Your task to perform on an android device: change notification settings in the gmail app Image 0: 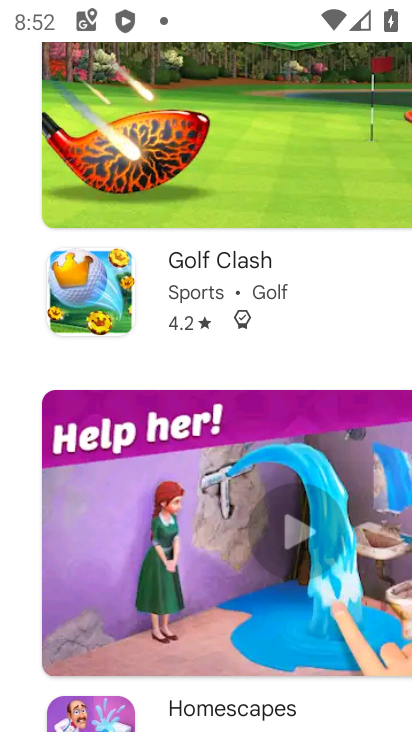
Step 0: press home button
Your task to perform on an android device: change notification settings in the gmail app Image 1: 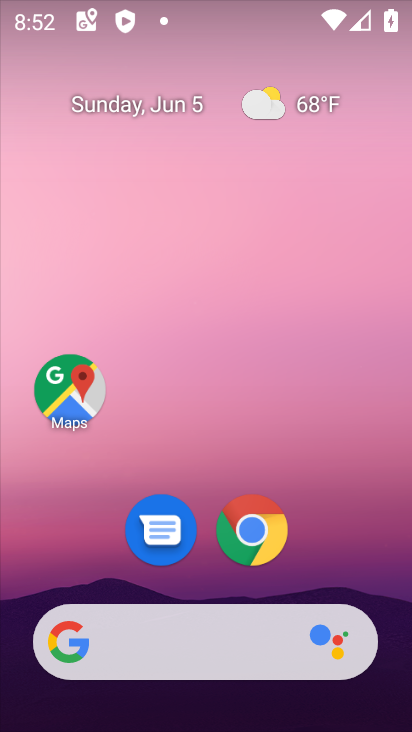
Step 1: drag from (405, 628) to (363, 81)
Your task to perform on an android device: change notification settings in the gmail app Image 2: 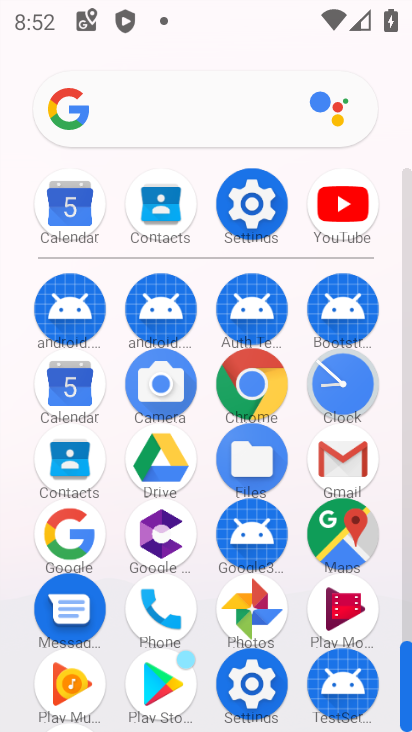
Step 2: click (337, 453)
Your task to perform on an android device: change notification settings in the gmail app Image 3: 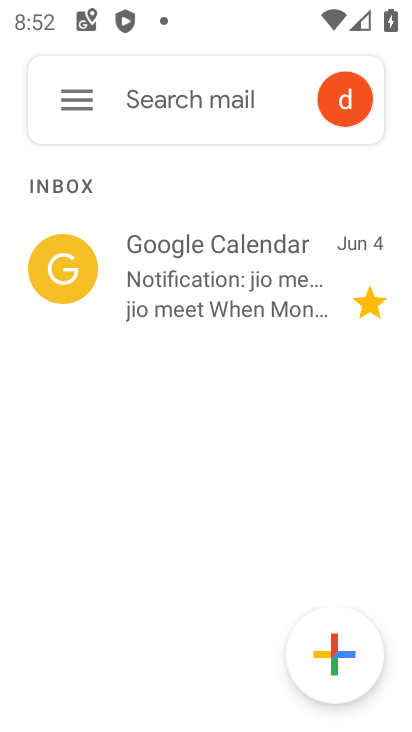
Step 3: click (66, 103)
Your task to perform on an android device: change notification settings in the gmail app Image 4: 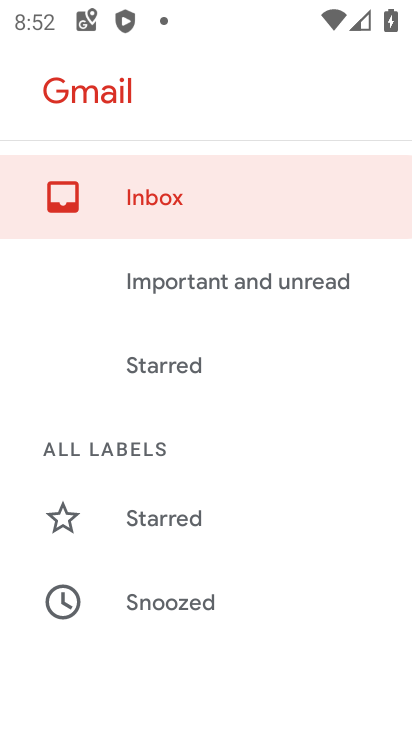
Step 4: drag from (274, 669) to (286, 104)
Your task to perform on an android device: change notification settings in the gmail app Image 5: 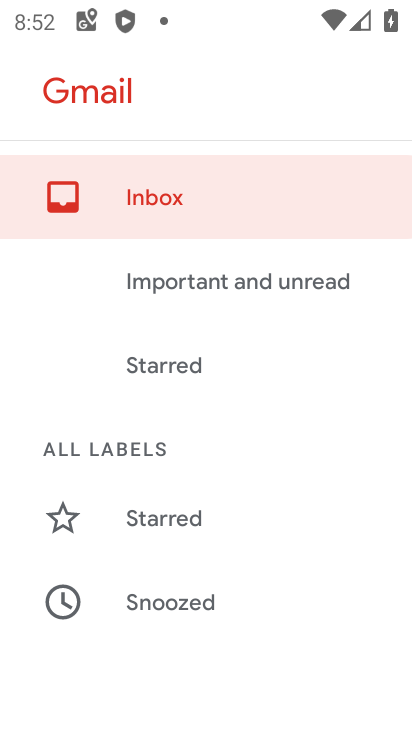
Step 5: drag from (283, 587) to (261, 77)
Your task to perform on an android device: change notification settings in the gmail app Image 6: 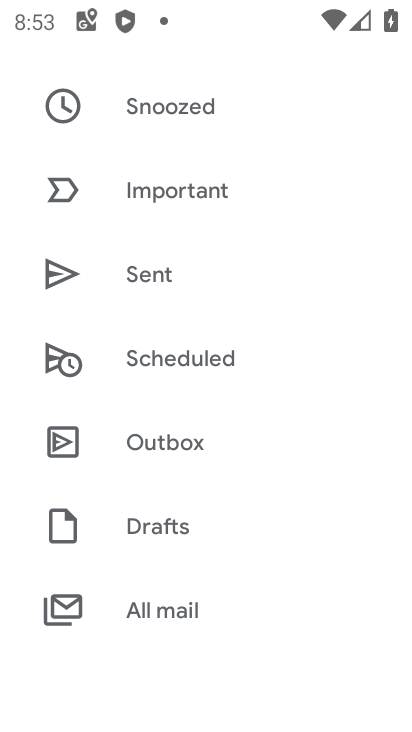
Step 6: drag from (248, 626) to (251, 171)
Your task to perform on an android device: change notification settings in the gmail app Image 7: 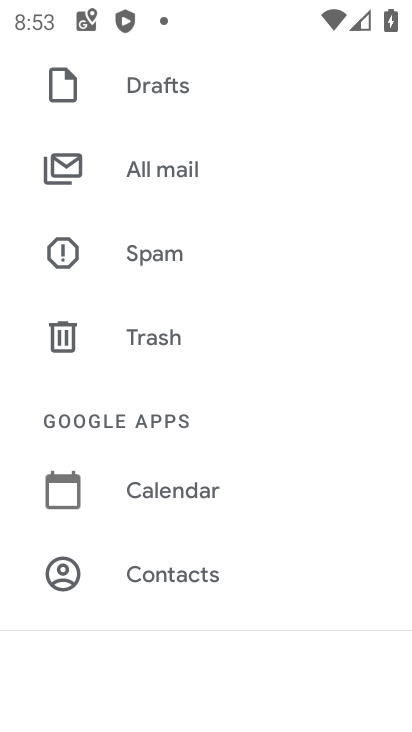
Step 7: drag from (238, 567) to (255, 54)
Your task to perform on an android device: change notification settings in the gmail app Image 8: 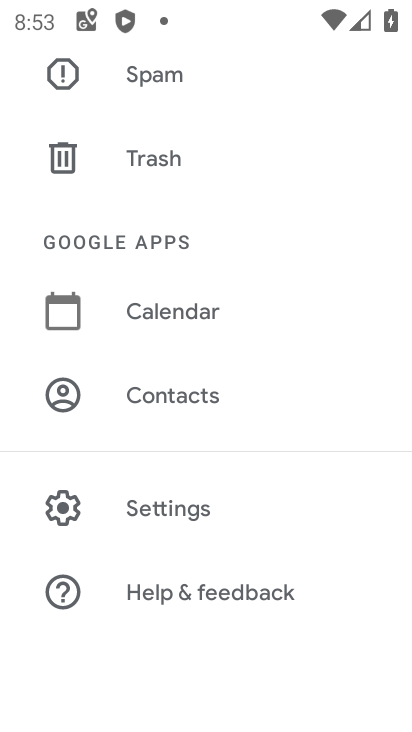
Step 8: click (179, 508)
Your task to perform on an android device: change notification settings in the gmail app Image 9: 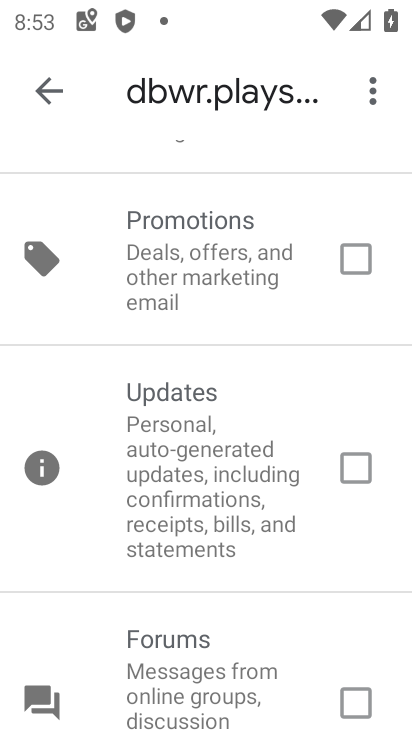
Step 9: press back button
Your task to perform on an android device: change notification settings in the gmail app Image 10: 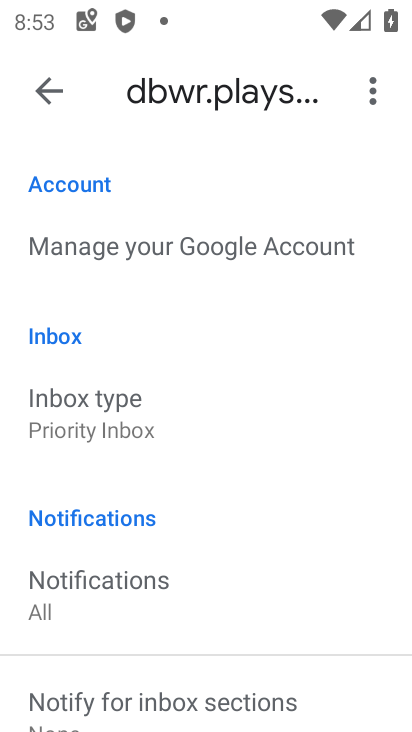
Step 10: drag from (284, 666) to (241, 136)
Your task to perform on an android device: change notification settings in the gmail app Image 11: 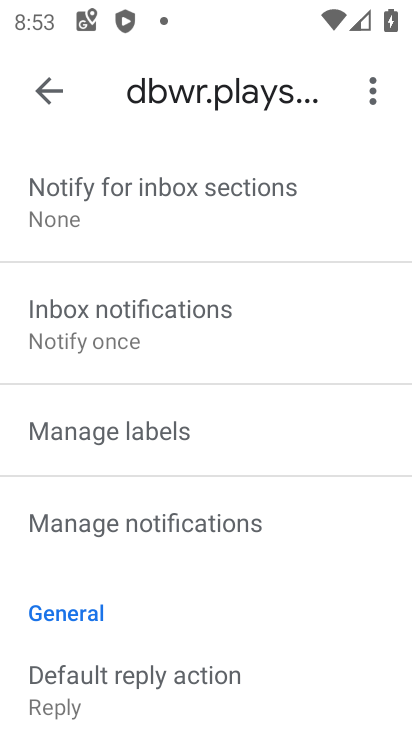
Step 11: click (176, 536)
Your task to perform on an android device: change notification settings in the gmail app Image 12: 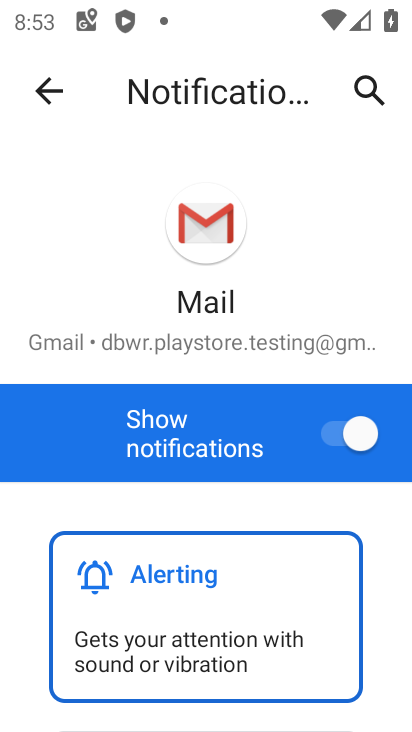
Step 12: click (330, 424)
Your task to perform on an android device: change notification settings in the gmail app Image 13: 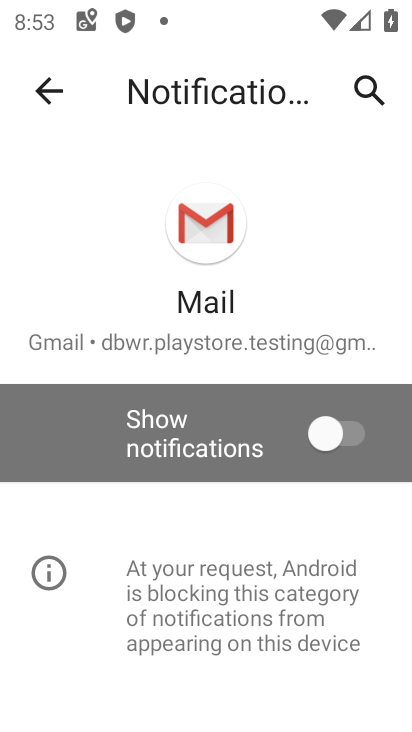
Step 13: task complete